Your task to perform on an android device: Search for Italian restaurants on Maps Image 0: 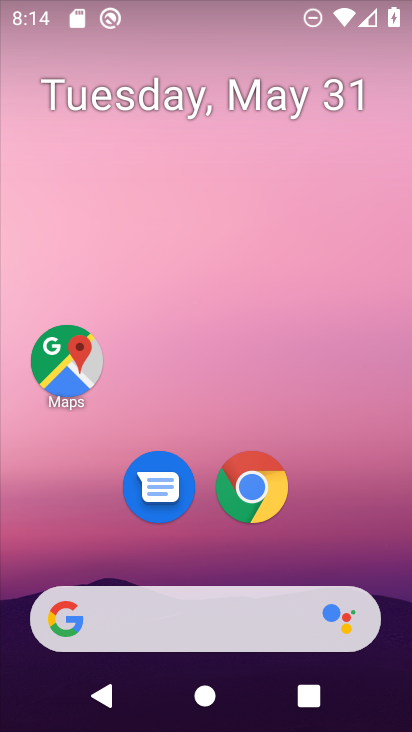
Step 0: click (57, 366)
Your task to perform on an android device: Search for Italian restaurants on Maps Image 1: 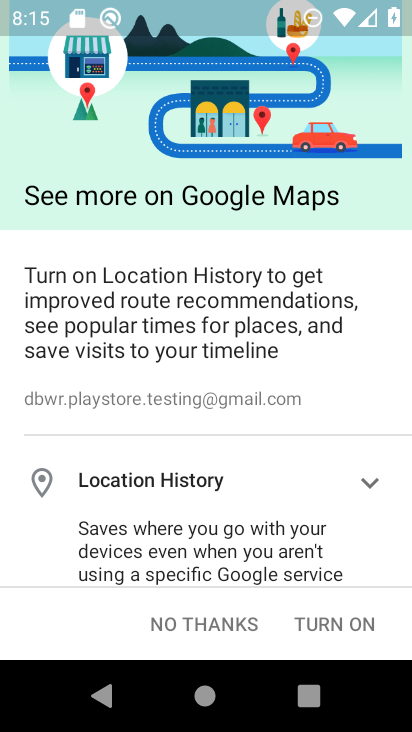
Step 1: task complete